Your task to perform on an android device: change the upload size in google photos Image 0: 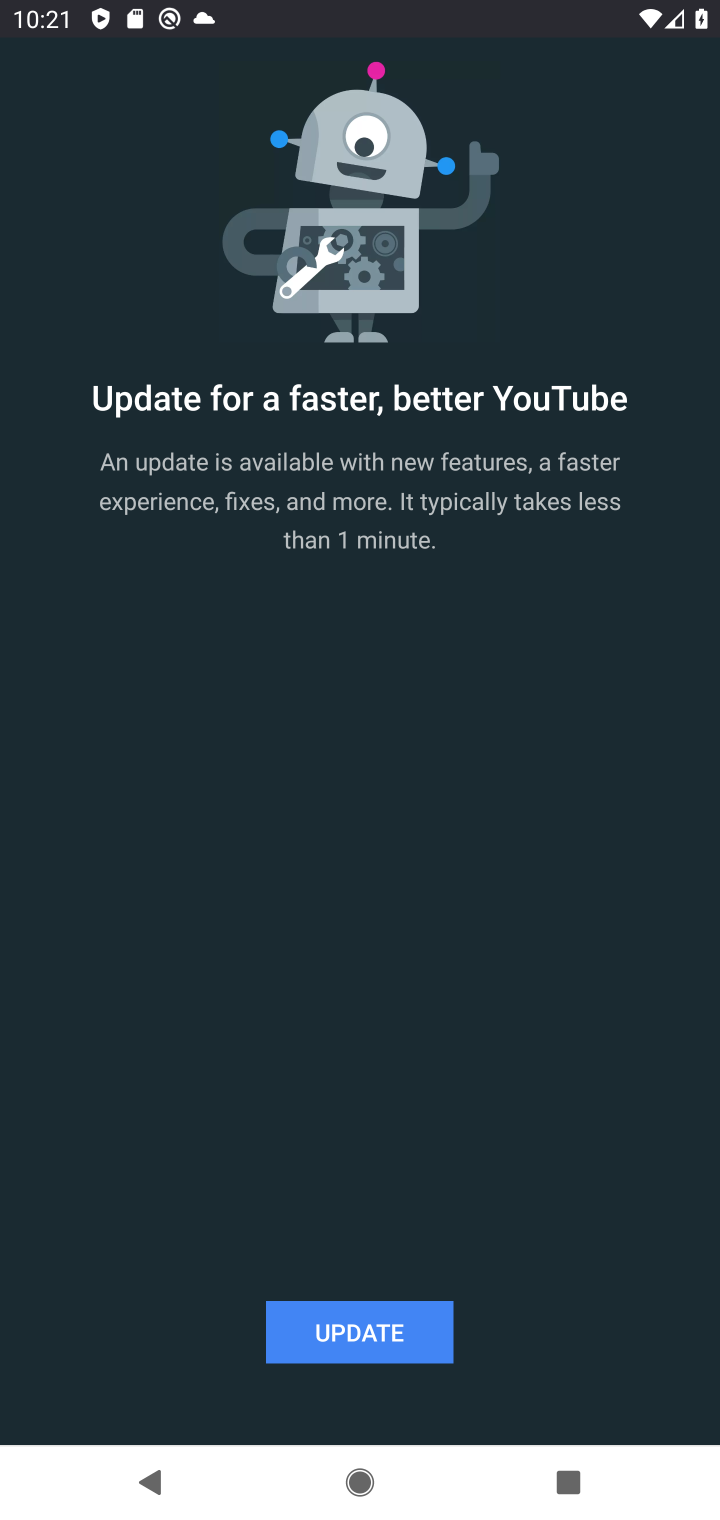
Step 0: press back button
Your task to perform on an android device: change the upload size in google photos Image 1: 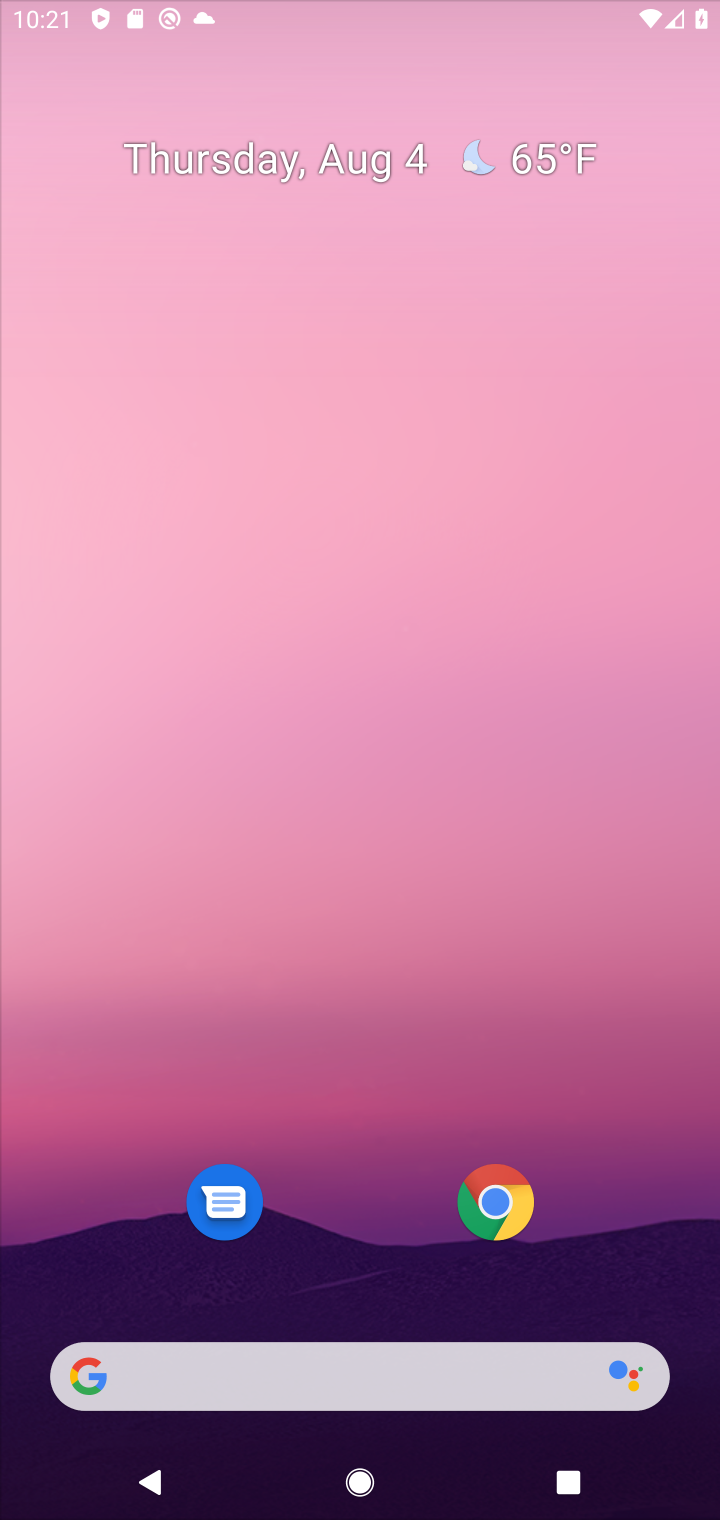
Step 1: drag from (342, 1166) to (573, 26)
Your task to perform on an android device: change the upload size in google photos Image 2: 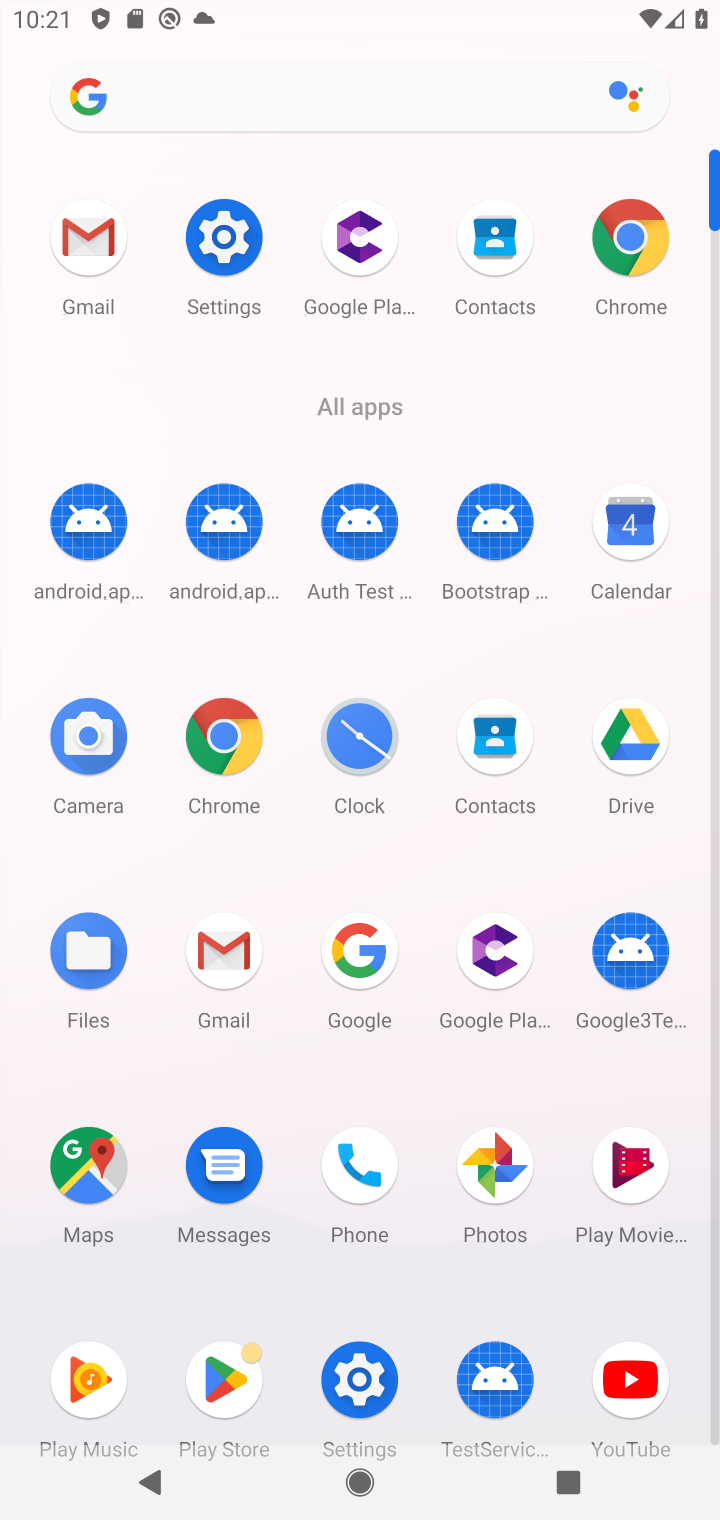
Step 2: click (497, 1235)
Your task to perform on an android device: change the upload size in google photos Image 3: 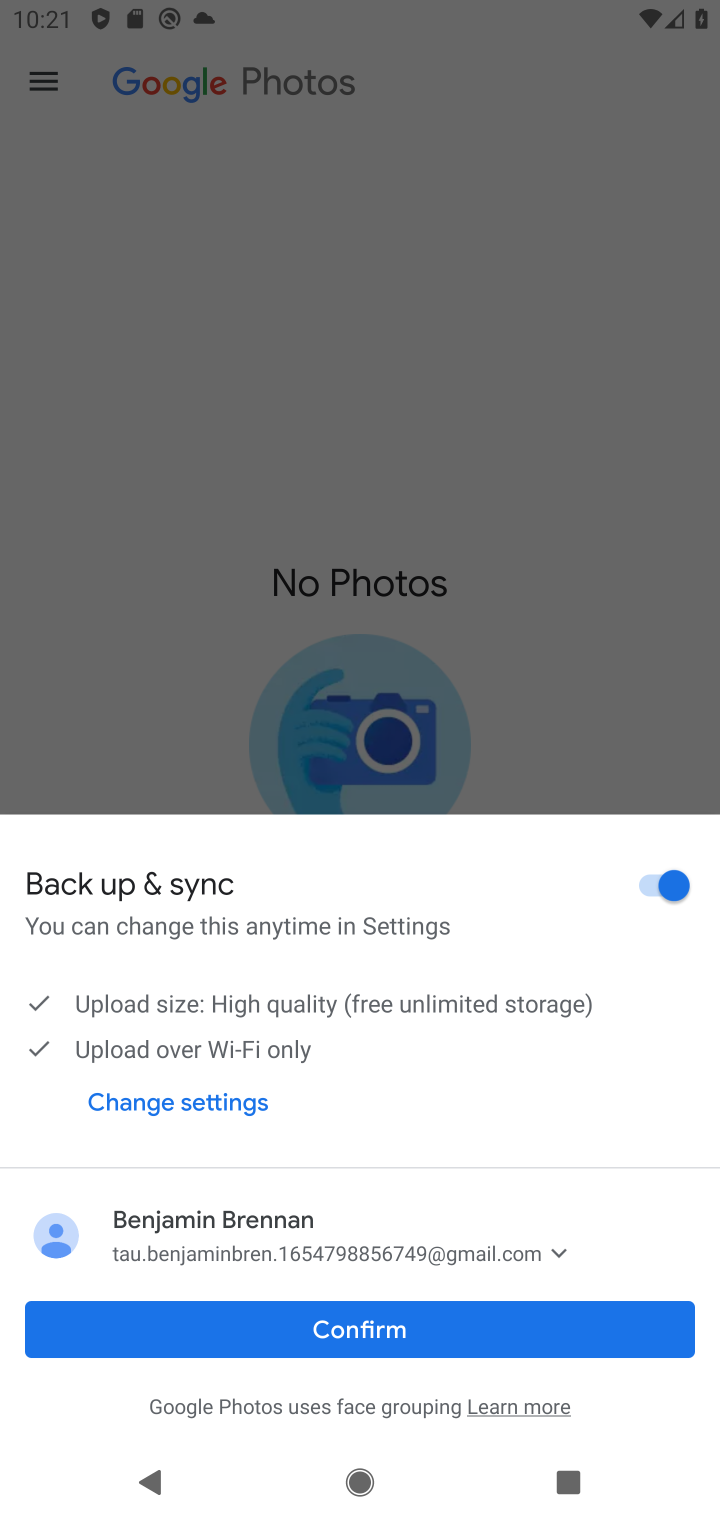
Step 3: click (370, 1327)
Your task to perform on an android device: change the upload size in google photos Image 4: 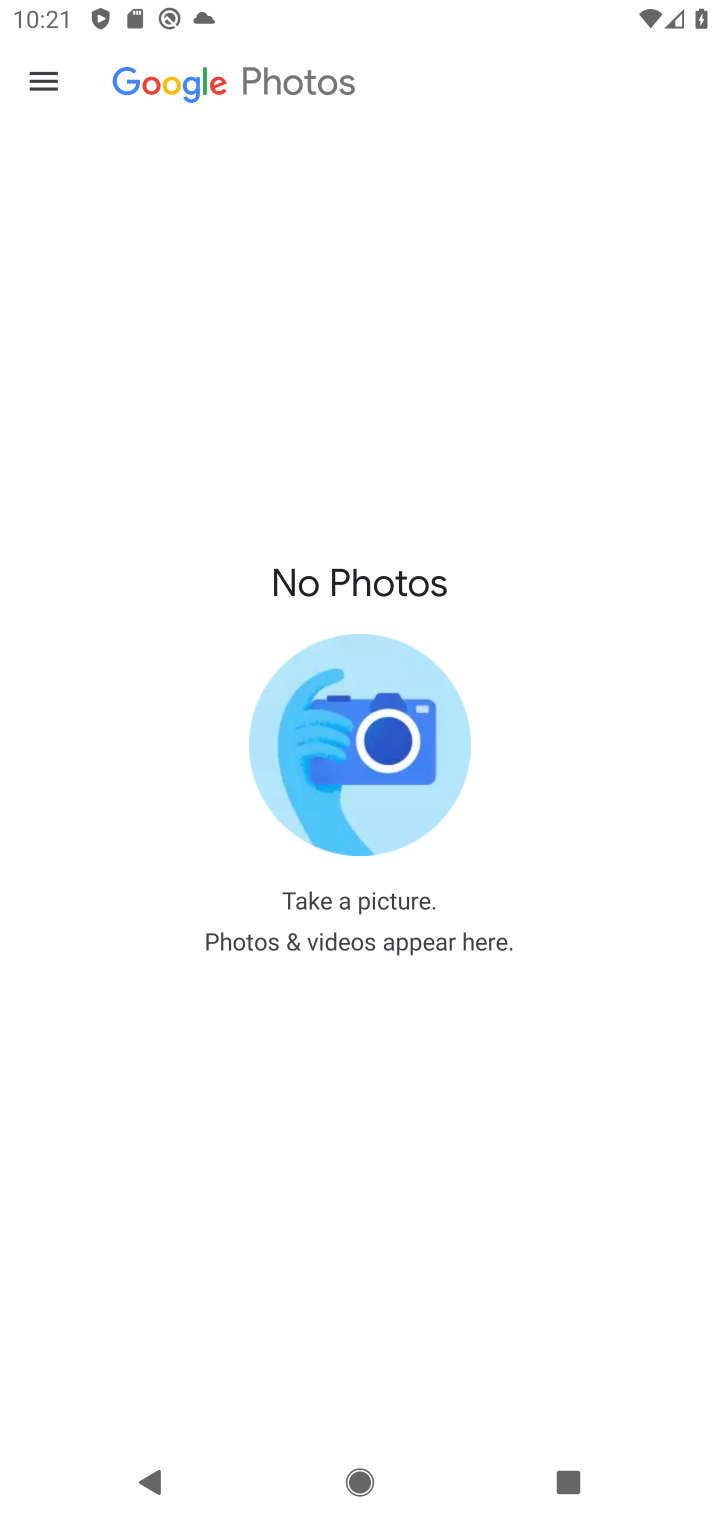
Step 4: click (50, 74)
Your task to perform on an android device: change the upload size in google photos Image 5: 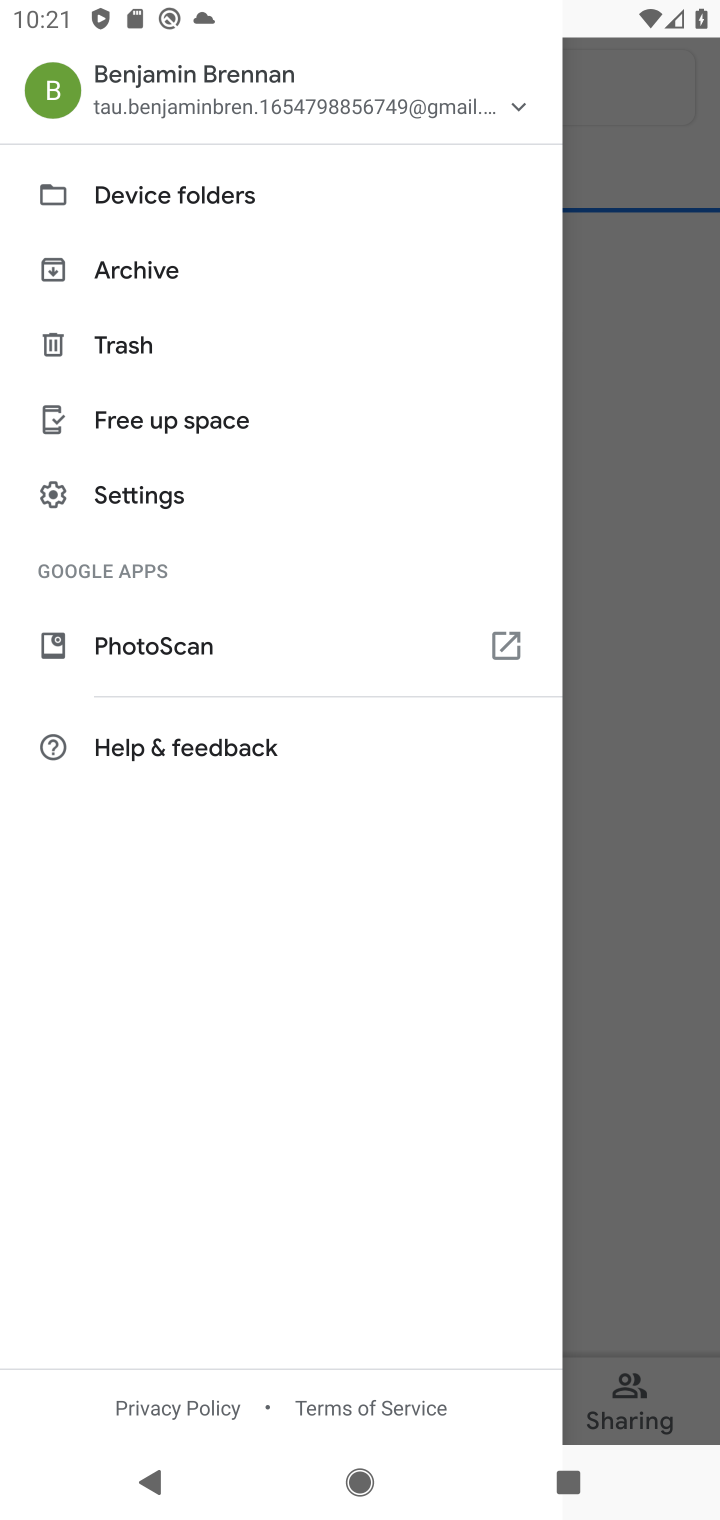
Step 5: click (162, 515)
Your task to perform on an android device: change the upload size in google photos Image 6: 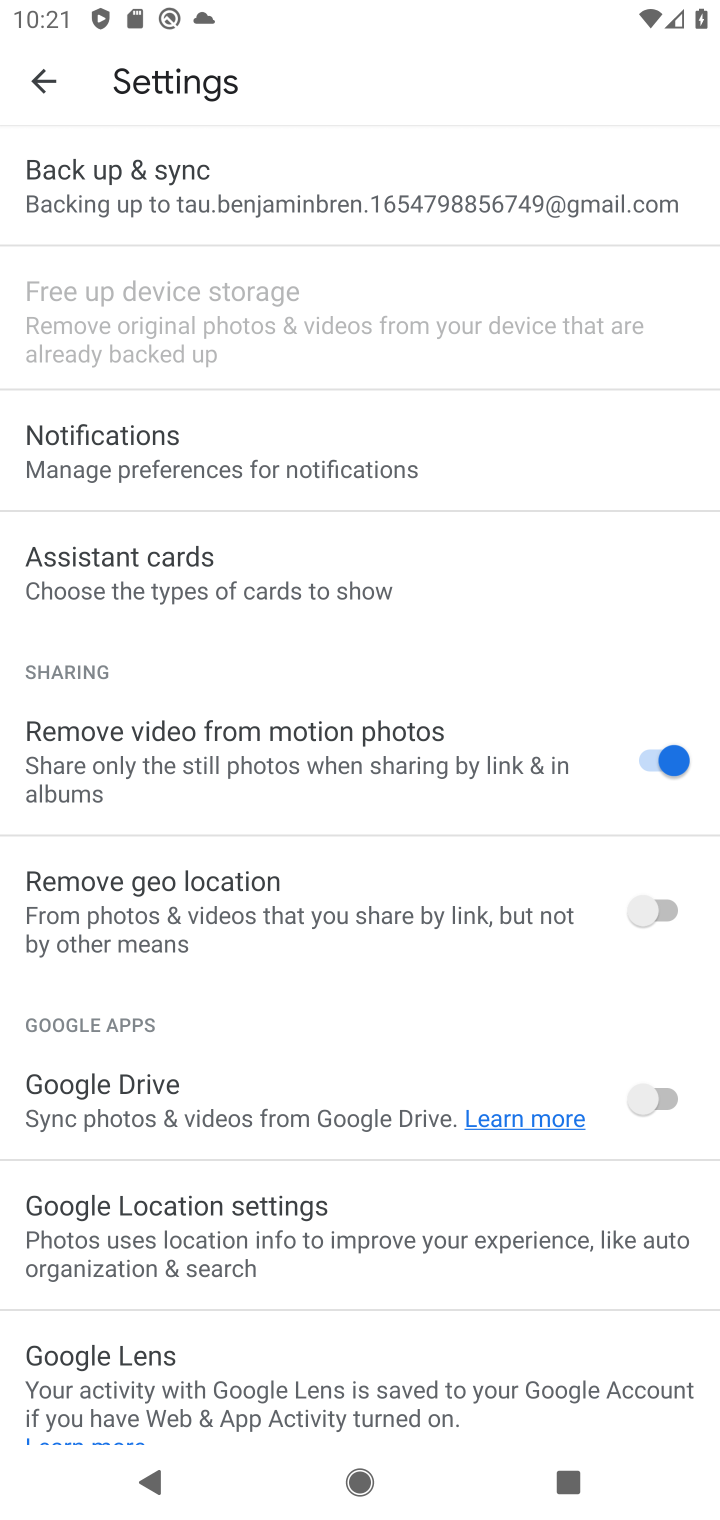
Step 6: click (396, 489)
Your task to perform on an android device: change the upload size in google photos Image 7: 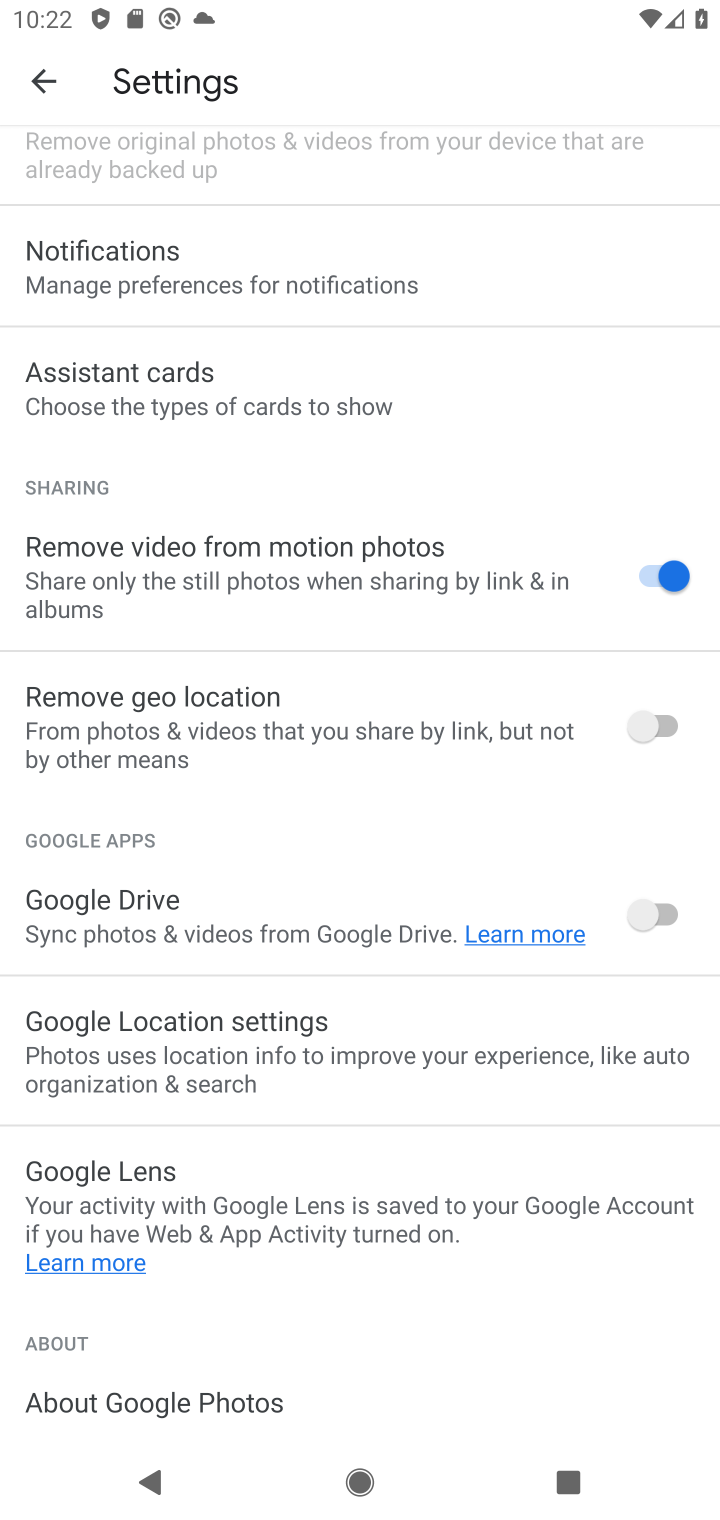
Step 7: drag from (430, 664) to (329, 1505)
Your task to perform on an android device: change the upload size in google photos Image 8: 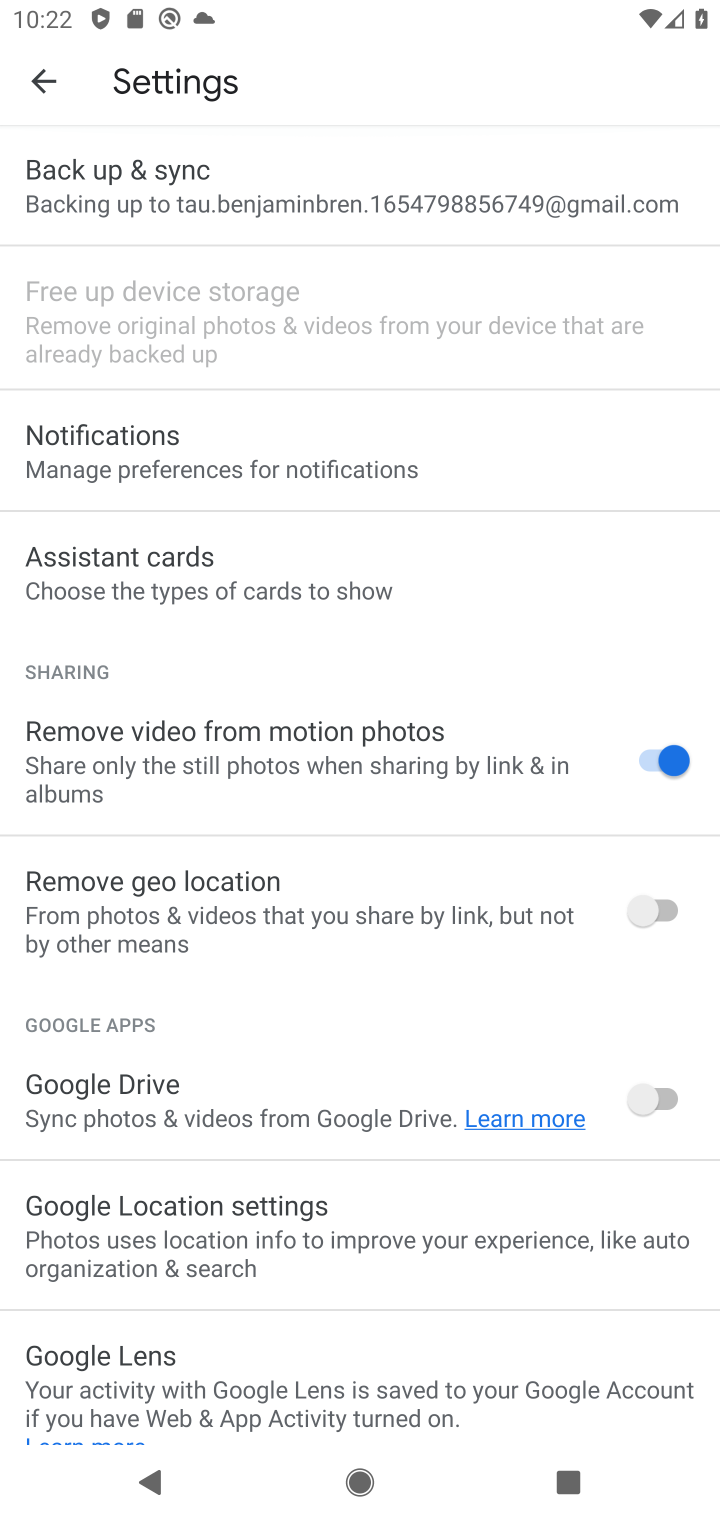
Step 8: click (216, 217)
Your task to perform on an android device: change the upload size in google photos Image 9: 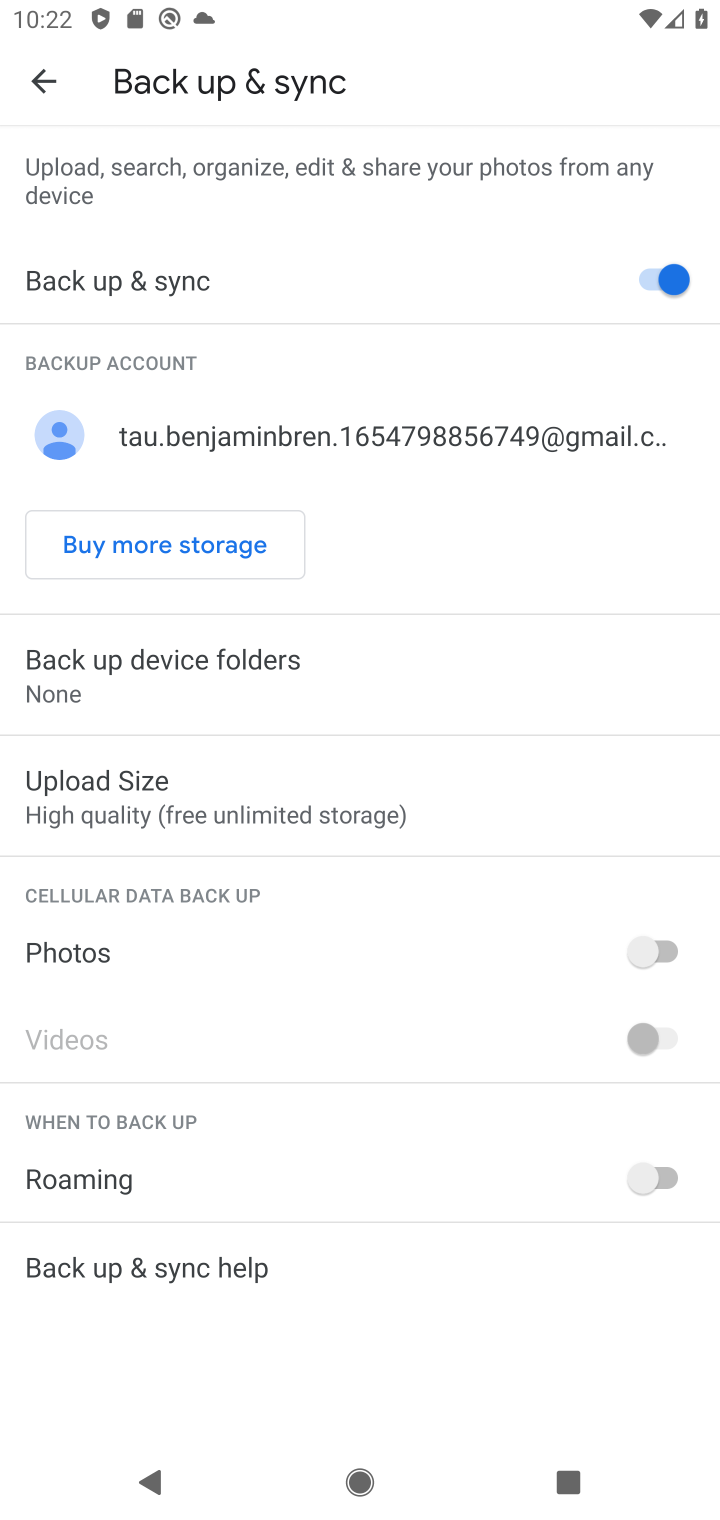
Step 9: click (159, 789)
Your task to perform on an android device: change the upload size in google photos Image 10: 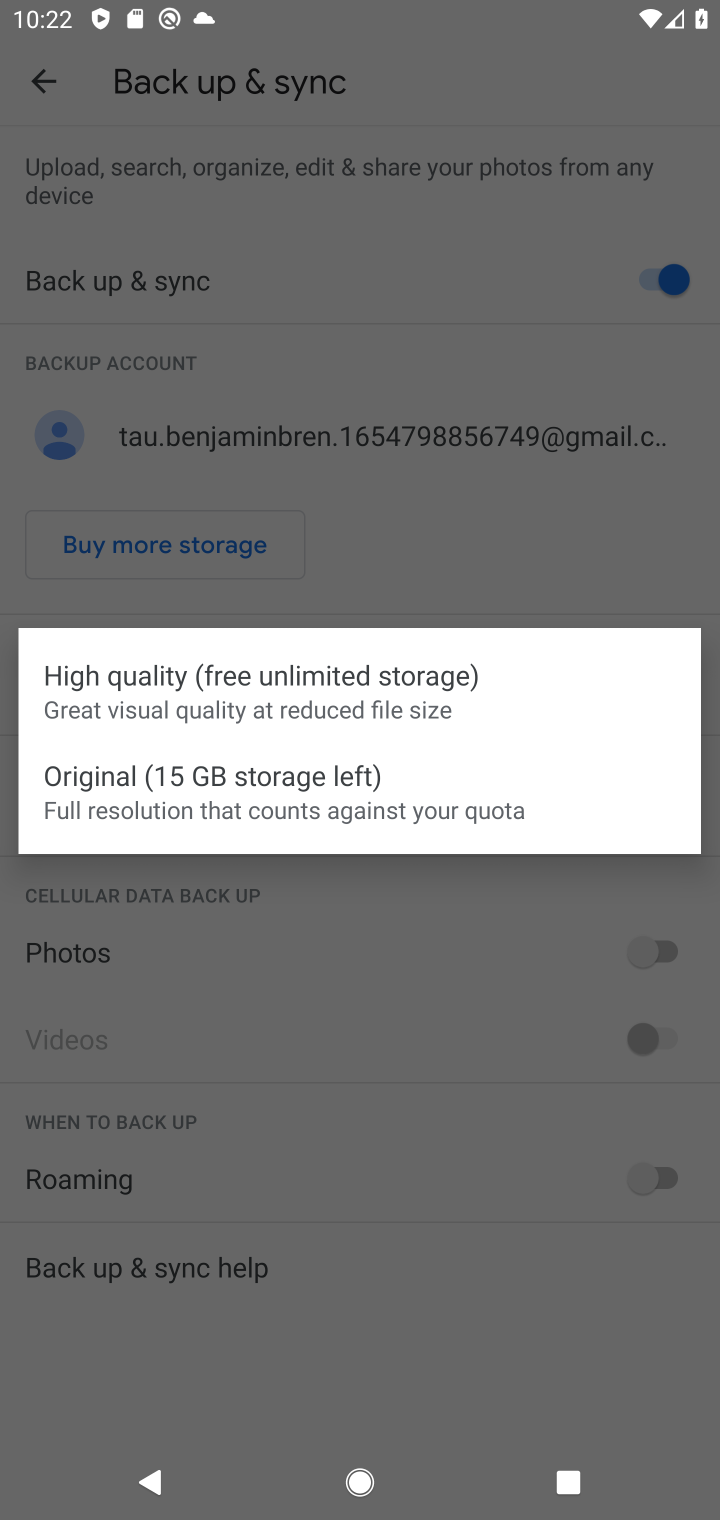
Step 10: click (603, 582)
Your task to perform on an android device: change the upload size in google photos Image 11: 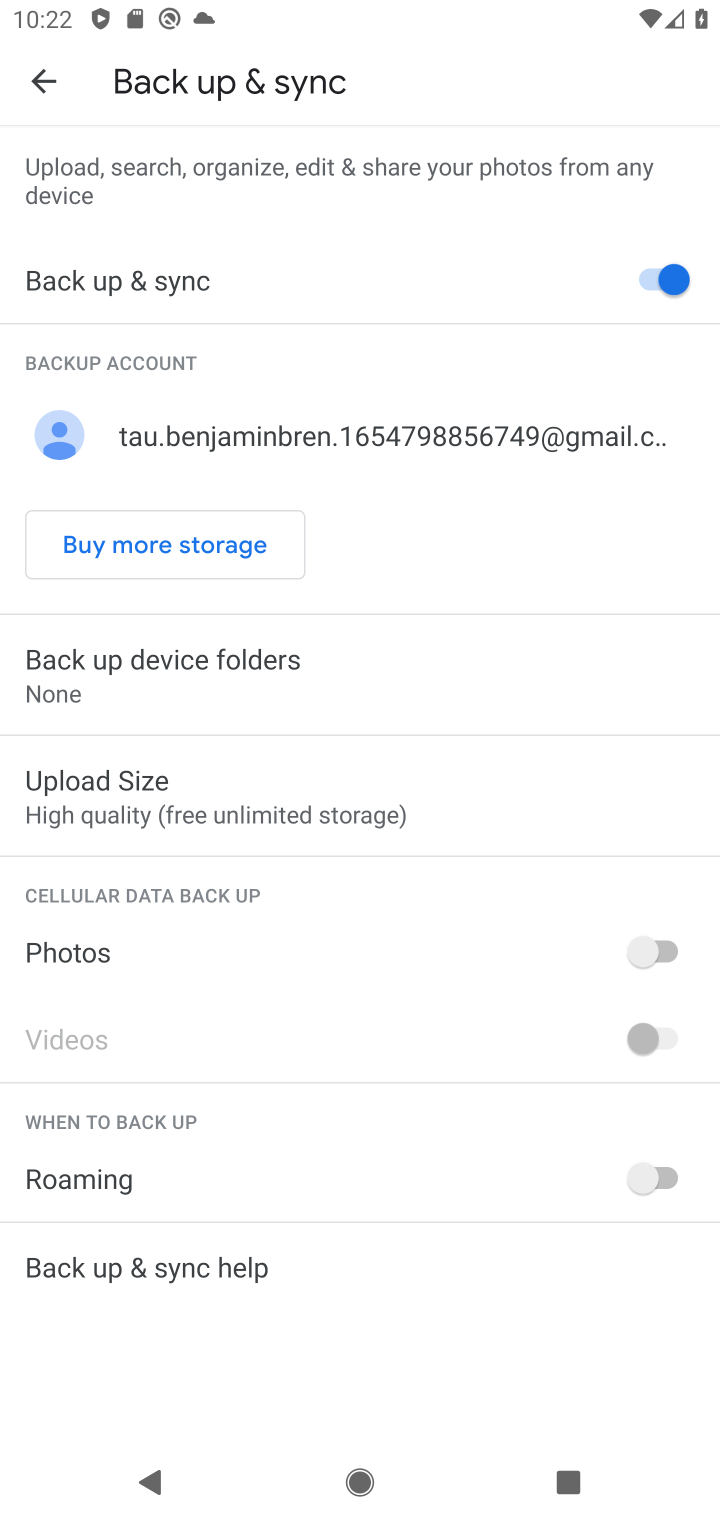
Step 11: click (83, 805)
Your task to perform on an android device: change the upload size in google photos Image 12: 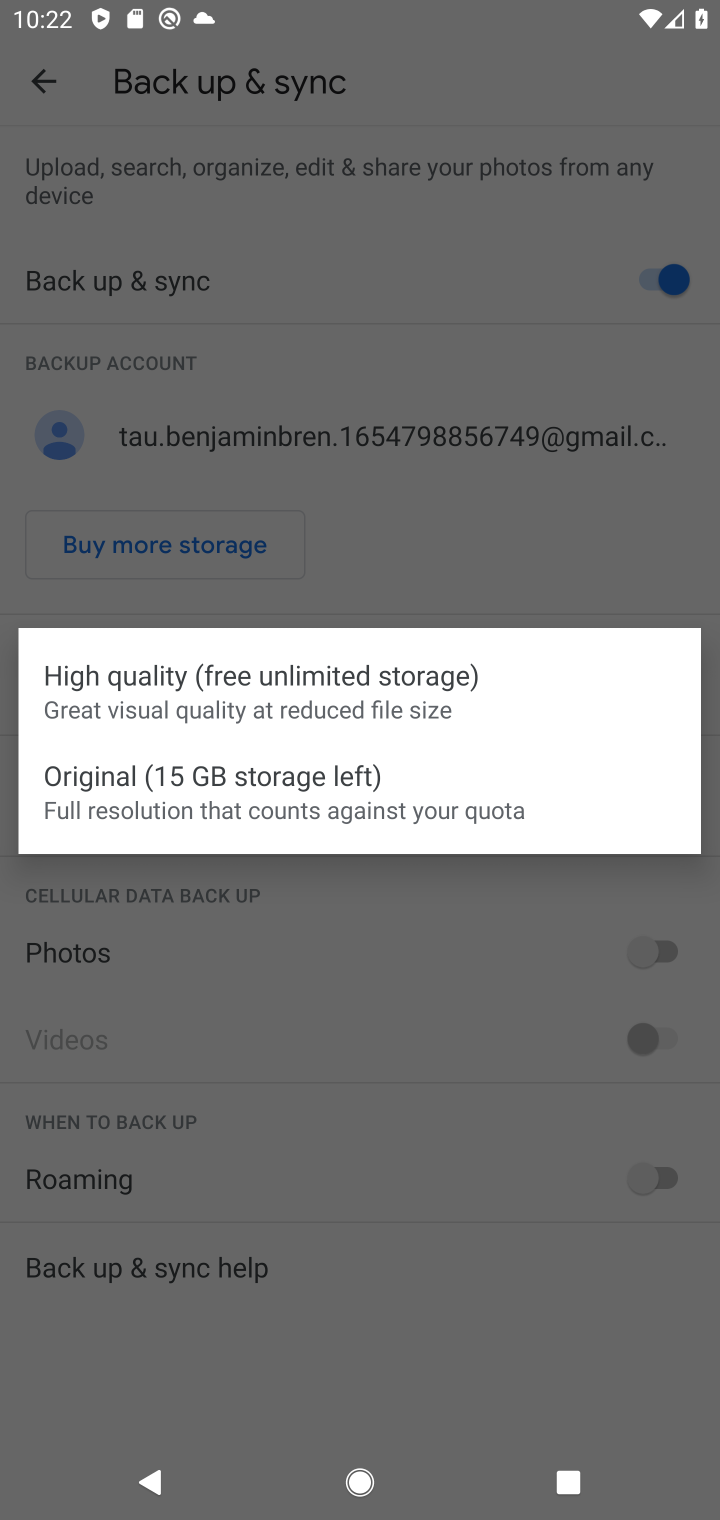
Step 12: click (304, 790)
Your task to perform on an android device: change the upload size in google photos Image 13: 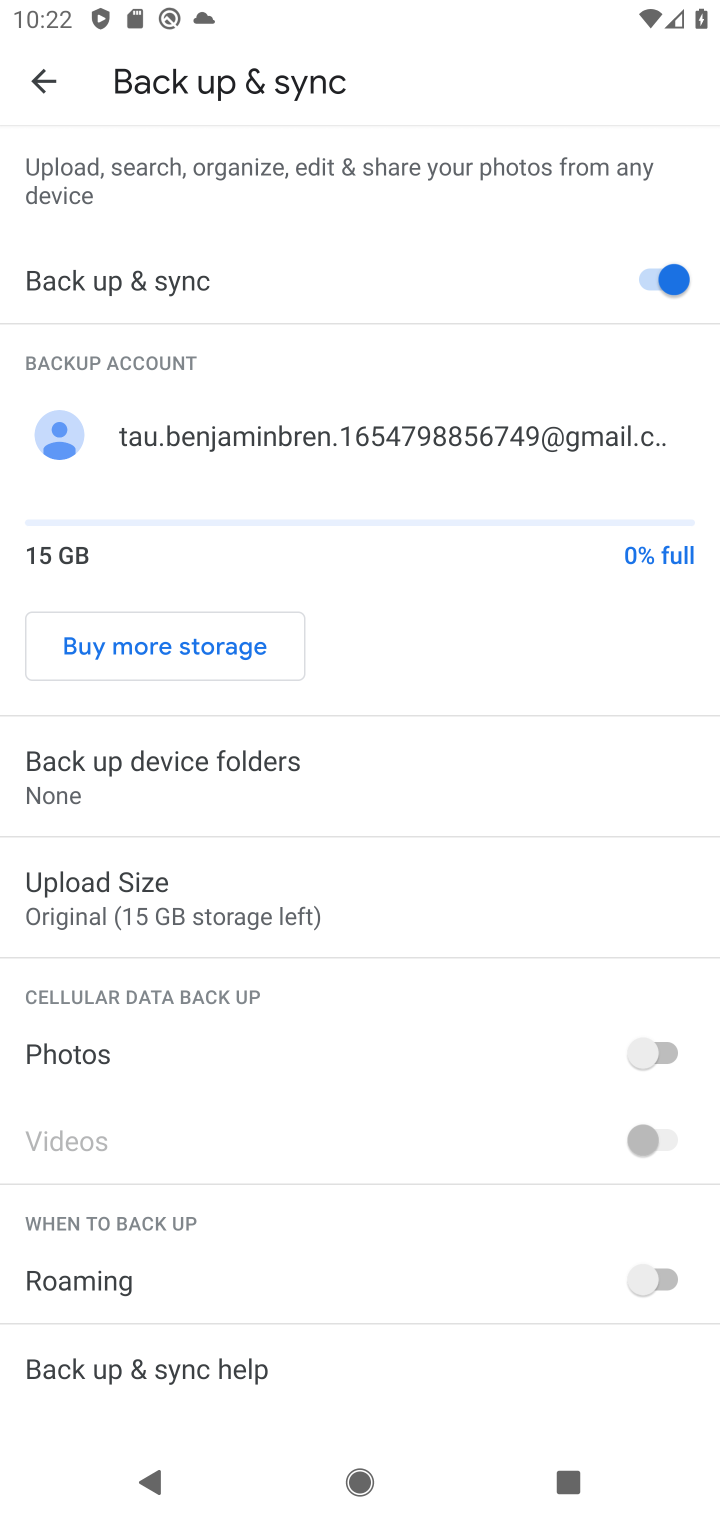
Step 13: task complete